Your task to perform on an android device: open chrome privacy settings Image 0: 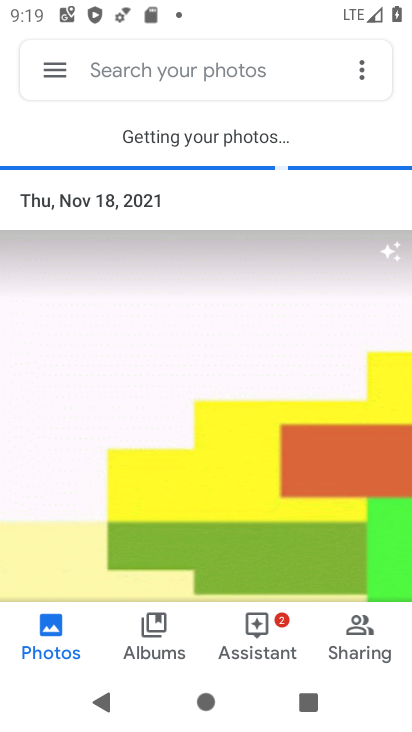
Step 0: press home button
Your task to perform on an android device: open chrome privacy settings Image 1: 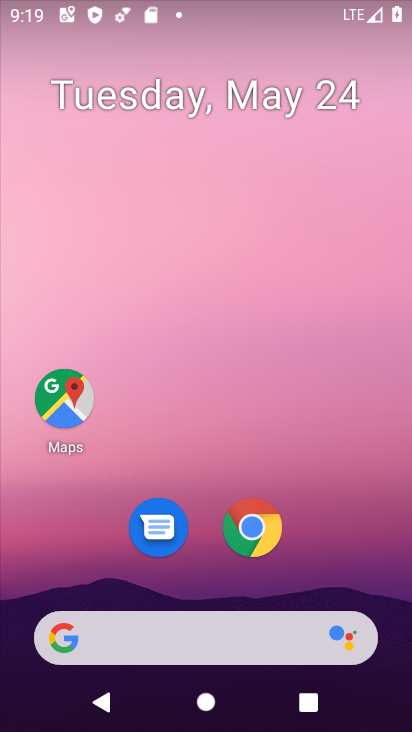
Step 1: click (262, 551)
Your task to perform on an android device: open chrome privacy settings Image 2: 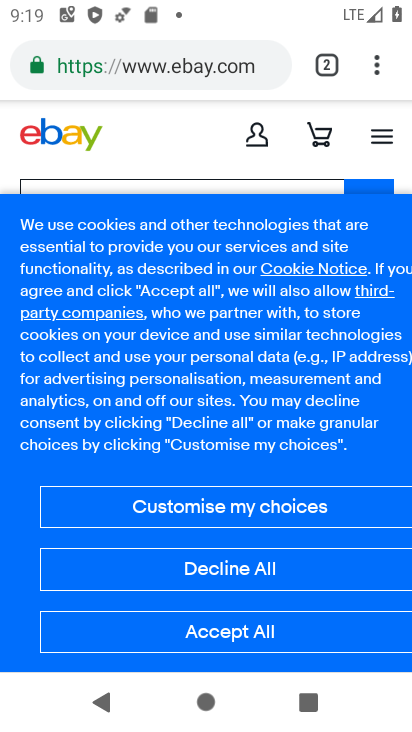
Step 2: click (378, 57)
Your task to perform on an android device: open chrome privacy settings Image 3: 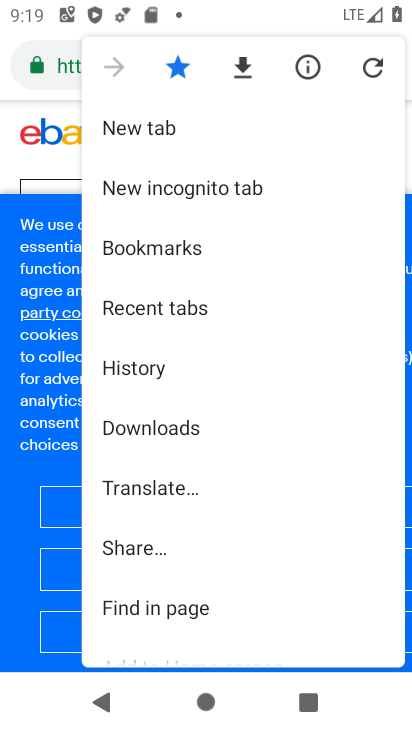
Step 3: drag from (207, 530) to (250, 161)
Your task to perform on an android device: open chrome privacy settings Image 4: 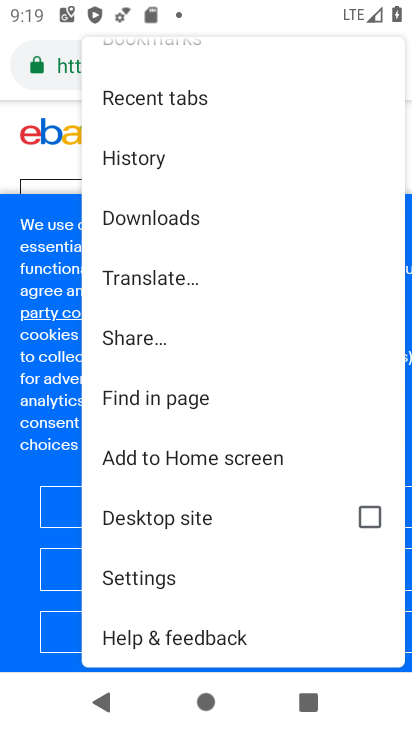
Step 4: click (165, 592)
Your task to perform on an android device: open chrome privacy settings Image 5: 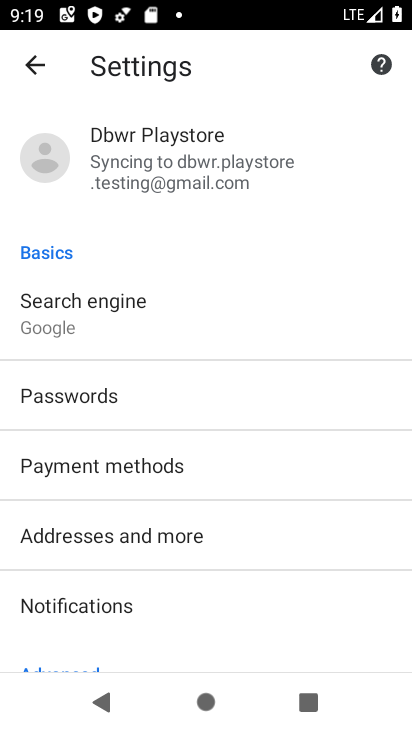
Step 5: drag from (165, 592) to (181, 165)
Your task to perform on an android device: open chrome privacy settings Image 6: 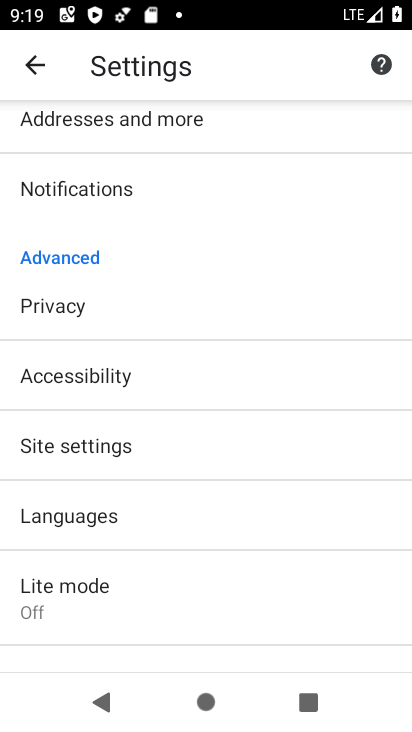
Step 6: drag from (145, 558) to (147, 417)
Your task to perform on an android device: open chrome privacy settings Image 7: 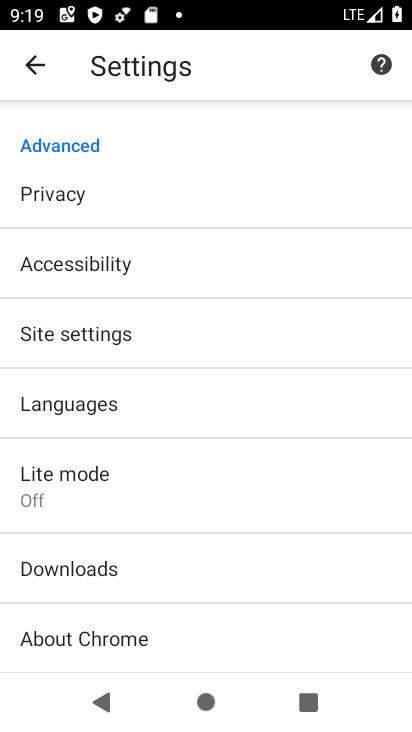
Step 7: click (81, 196)
Your task to perform on an android device: open chrome privacy settings Image 8: 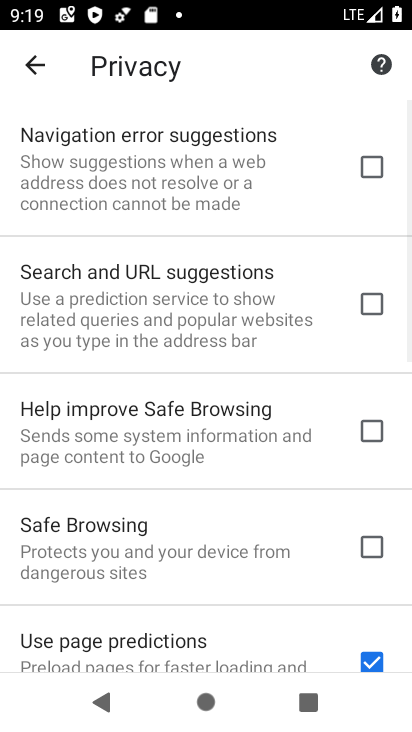
Step 8: task complete